Your task to perform on an android device: turn off smart reply in the gmail app Image 0: 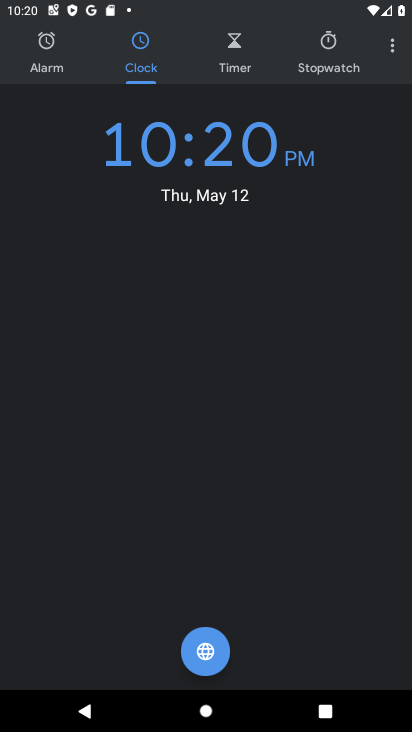
Step 0: press home button
Your task to perform on an android device: turn off smart reply in the gmail app Image 1: 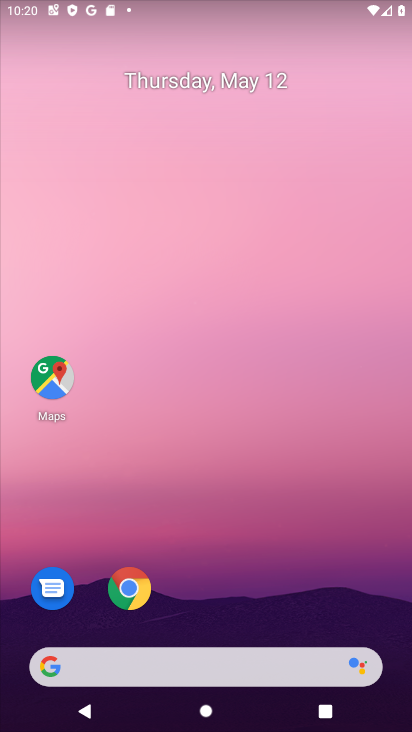
Step 1: drag from (171, 656) to (237, 207)
Your task to perform on an android device: turn off smart reply in the gmail app Image 2: 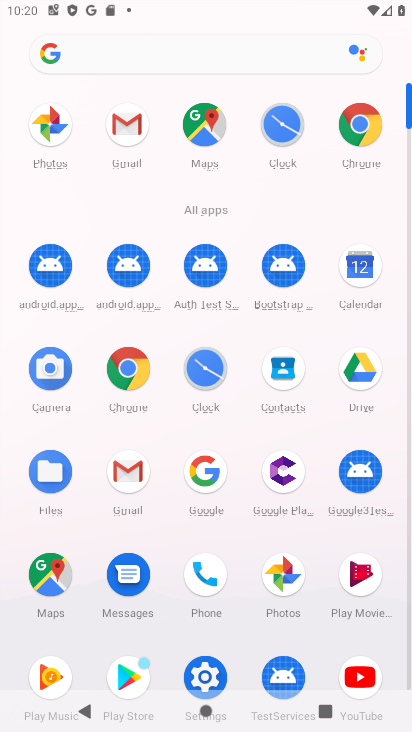
Step 2: click (139, 471)
Your task to perform on an android device: turn off smart reply in the gmail app Image 3: 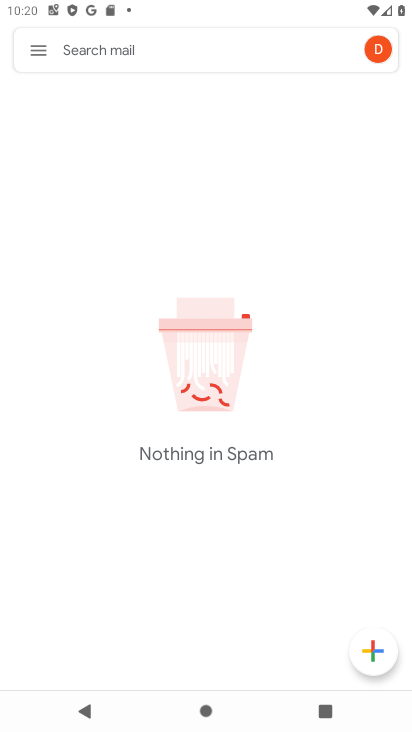
Step 3: click (34, 57)
Your task to perform on an android device: turn off smart reply in the gmail app Image 4: 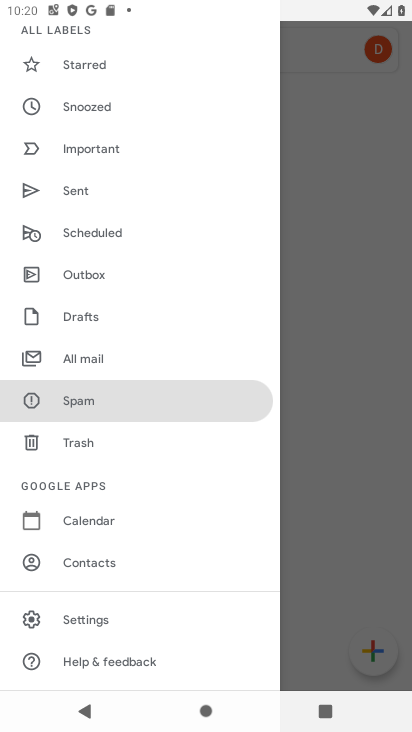
Step 4: click (97, 628)
Your task to perform on an android device: turn off smart reply in the gmail app Image 5: 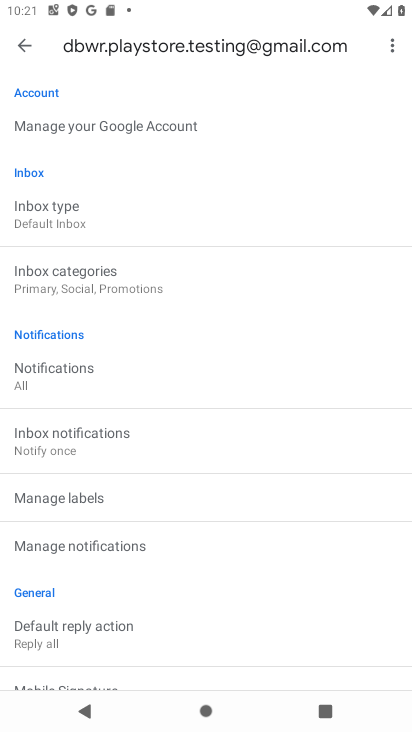
Step 5: drag from (136, 658) to (208, 200)
Your task to perform on an android device: turn off smart reply in the gmail app Image 6: 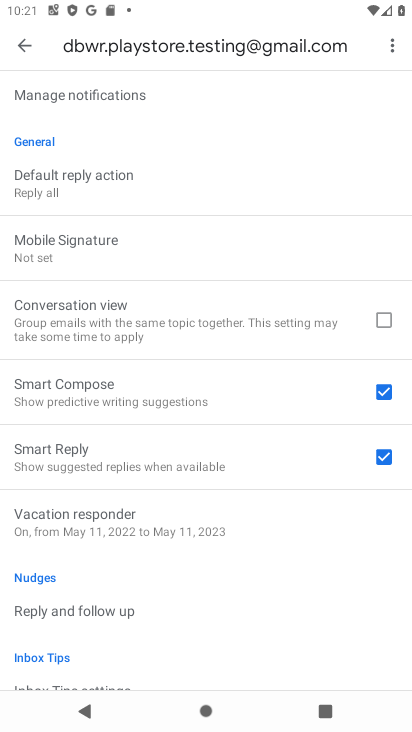
Step 6: click (389, 456)
Your task to perform on an android device: turn off smart reply in the gmail app Image 7: 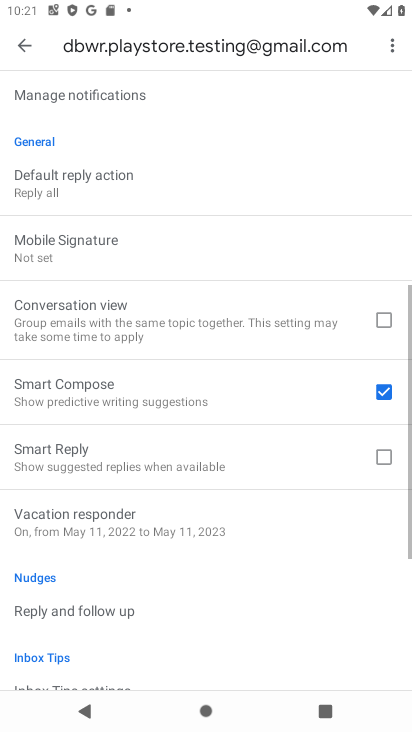
Step 7: task complete